Your task to perform on an android device: Open Google Maps Image 0: 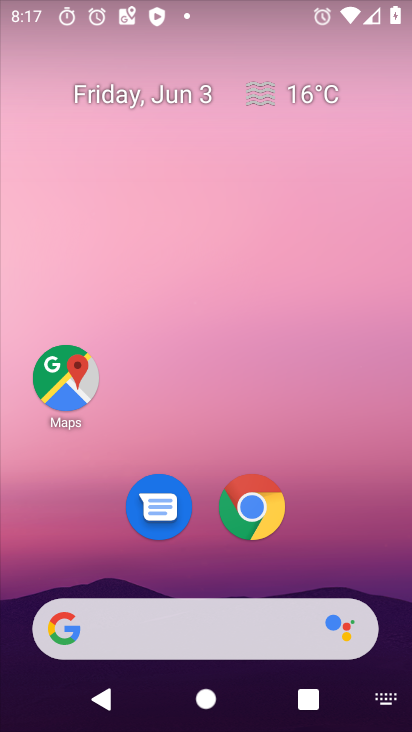
Step 0: click (79, 384)
Your task to perform on an android device: Open Google Maps Image 1: 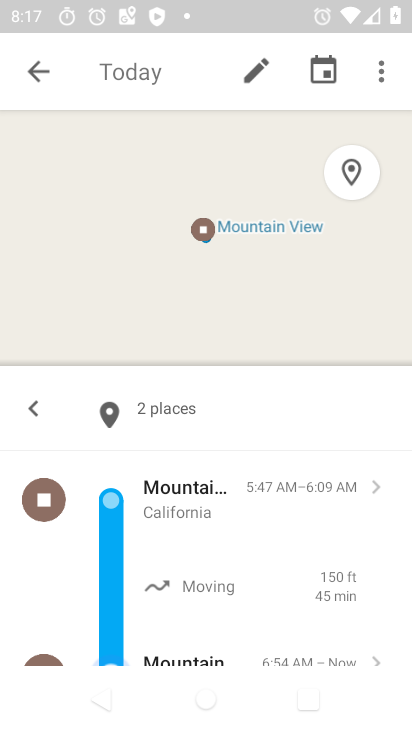
Step 1: task complete